Your task to perform on an android device: What's the weather going to be tomorrow? Image 0: 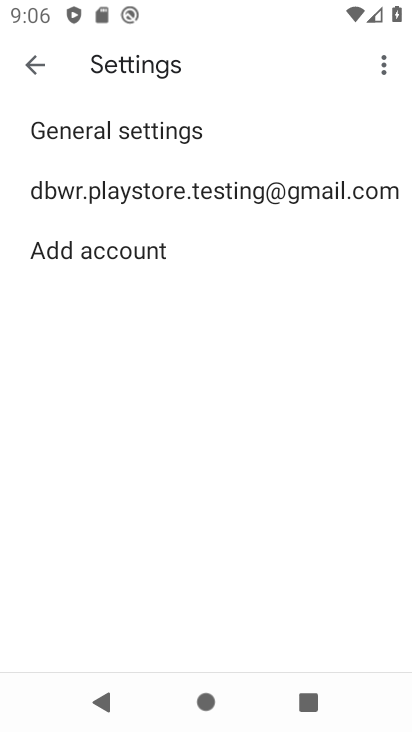
Step 0: press home button
Your task to perform on an android device: What's the weather going to be tomorrow? Image 1: 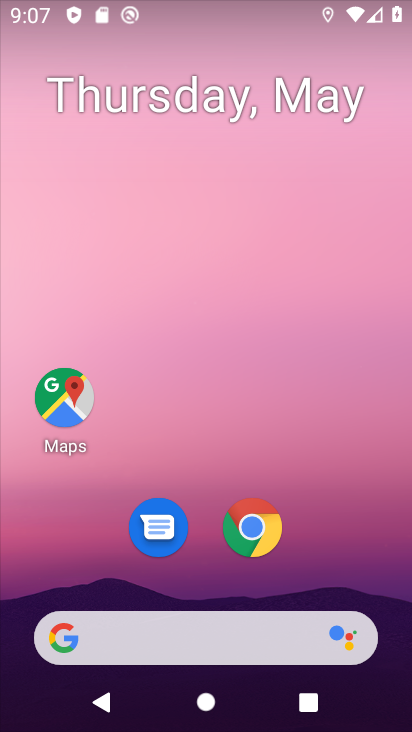
Step 1: click (125, 626)
Your task to perform on an android device: What's the weather going to be tomorrow? Image 2: 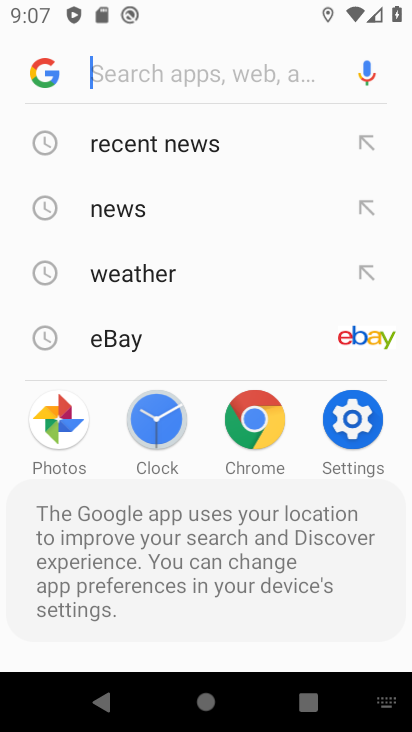
Step 2: type "What's the weather going to be tomorrow?"
Your task to perform on an android device: What's the weather going to be tomorrow? Image 3: 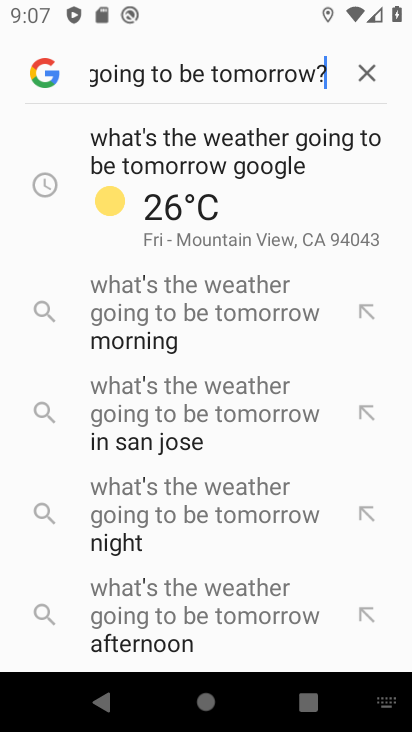
Step 3: click (201, 148)
Your task to perform on an android device: What's the weather going to be tomorrow? Image 4: 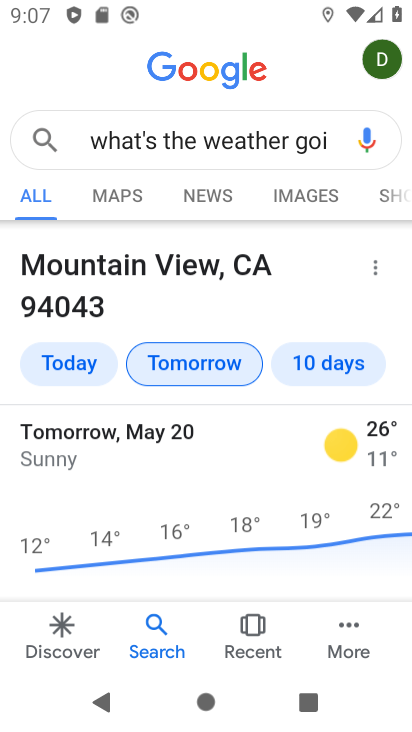
Step 4: task complete